Your task to perform on an android device: change the clock display to analog Image 0: 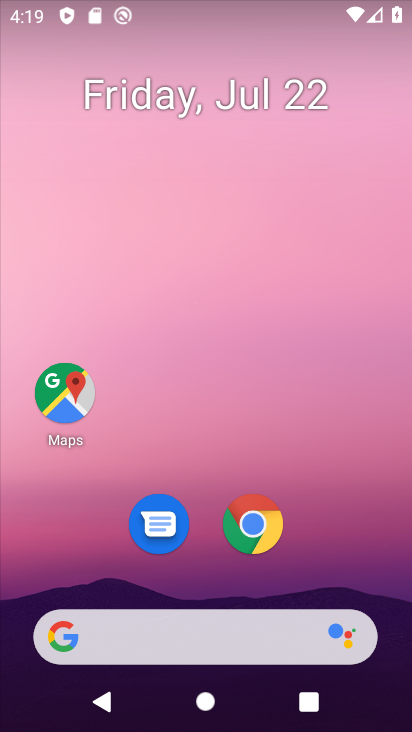
Step 0: drag from (310, 531) to (347, 103)
Your task to perform on an android device: change the clock display to analog Image 1: 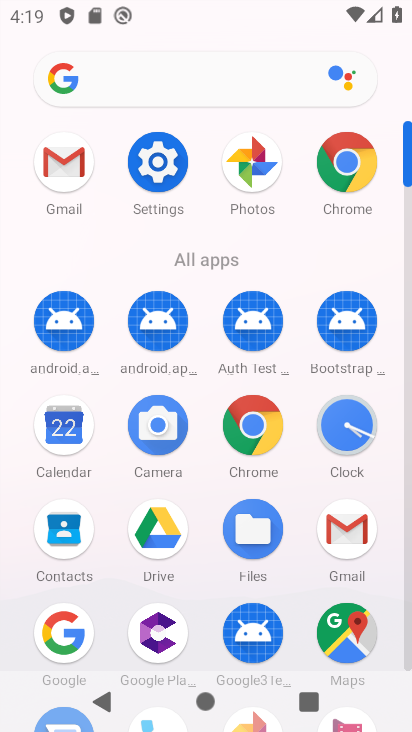
Step 1: click (336, 423)
Your task to perform on an android device: change the clock display to analog Image 2: 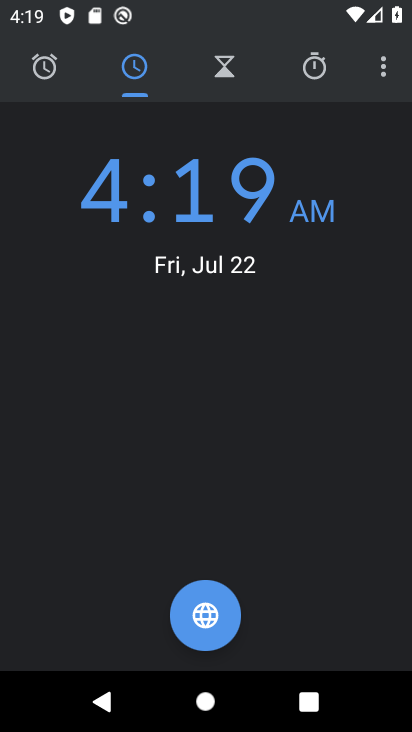
Step 2: click (384, 64)
Your task to perform on an android device: change the clock display to analog Image 3: 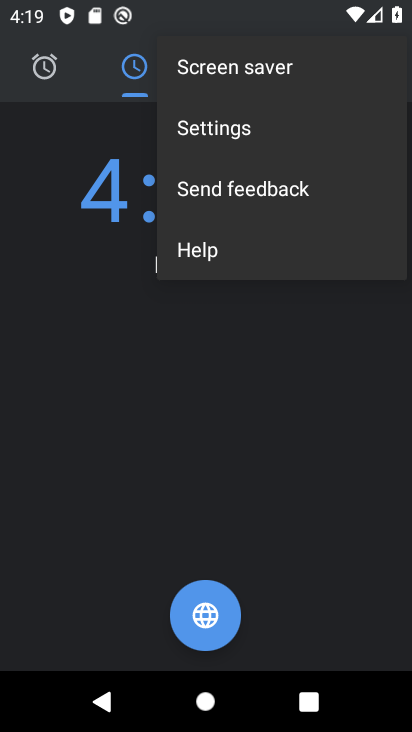
Step 3: click (268, 130)
Your task to perform on an android device: change the clock display to analog Image 4: 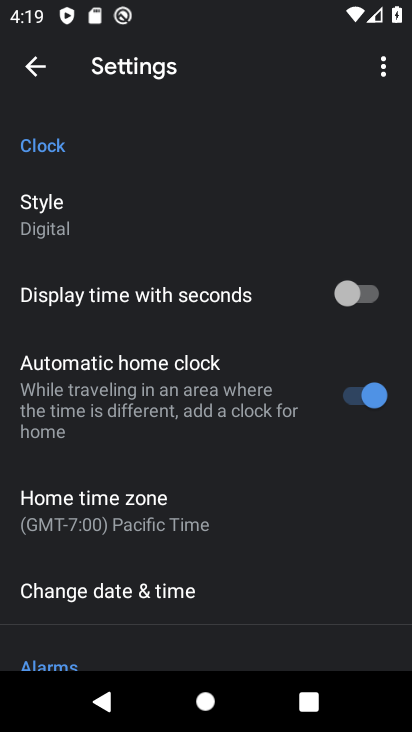
Step 4: click (374, 71)
Your task to perform on an android device: change the clock display to analog Image 5: 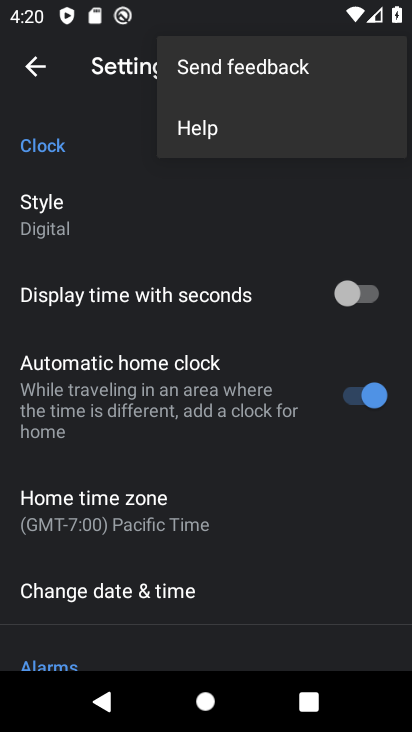
Step 5: click (46, 224)
Your task to perform on an android device: change the clock display to analog Image 6: 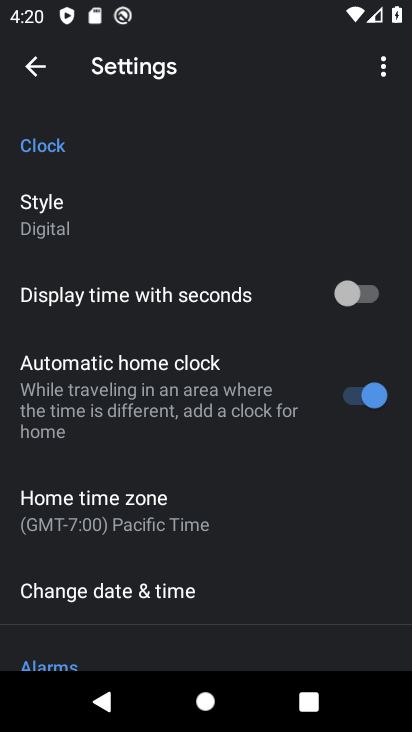
Step 6: click (46, 226)
Your task to perform on an android device: change the clock display to analog Image 7: 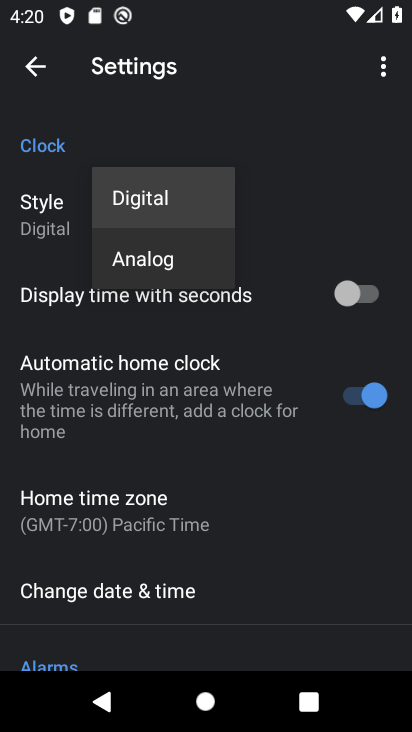
Step 7: click (132, 261)
Your task to perform on an android device: change the clock display to analog Image 8: 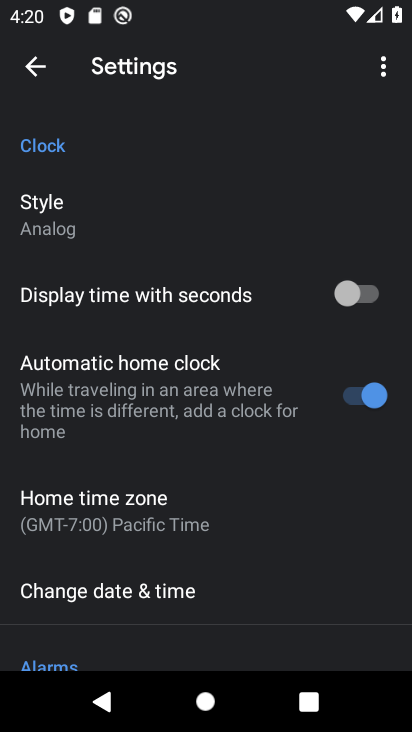
Step 8: click (49, 68)
Your task to perform on an android device: change the clock display to analog Image 9: 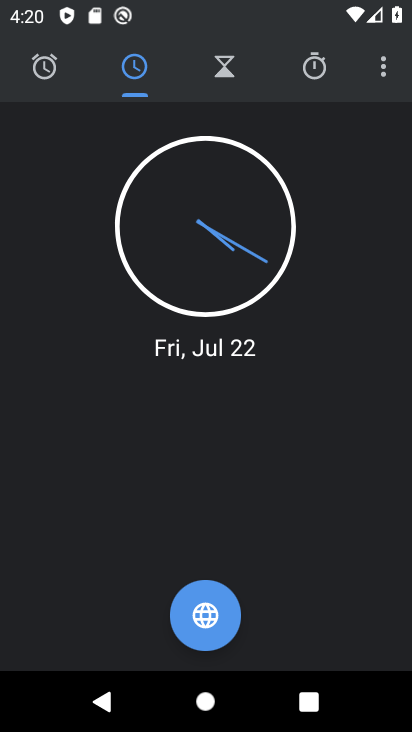
Step 9: task complete